Your task to perform on an android device: open app "Google Docs" (install if not already installed) Image 0: 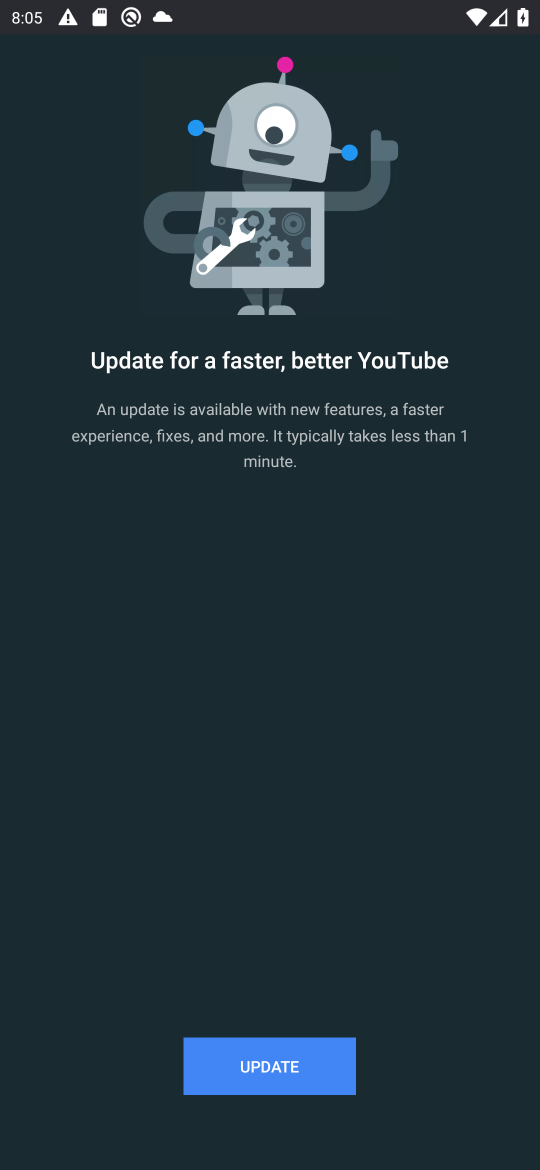
Step 0: press home button
Your task to perform on an android device: open app "Google Docs" (install if not already installed) Image 1: 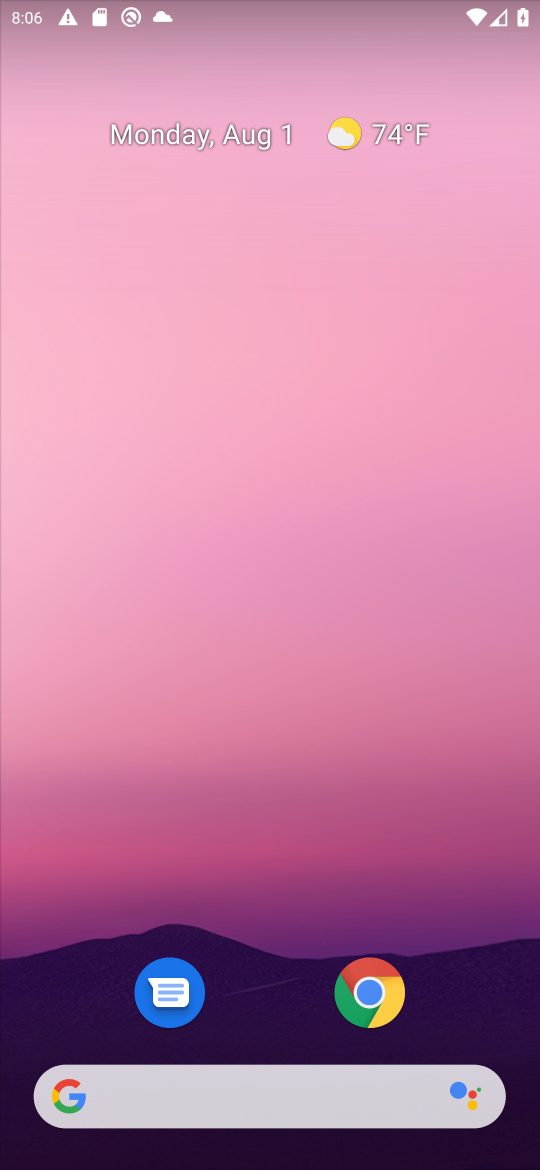
Step 1: drag from (262, 922) to (257, 116)
Your task to perform on an android device: open app "Google Docs" (install if not already installed) Image 2: 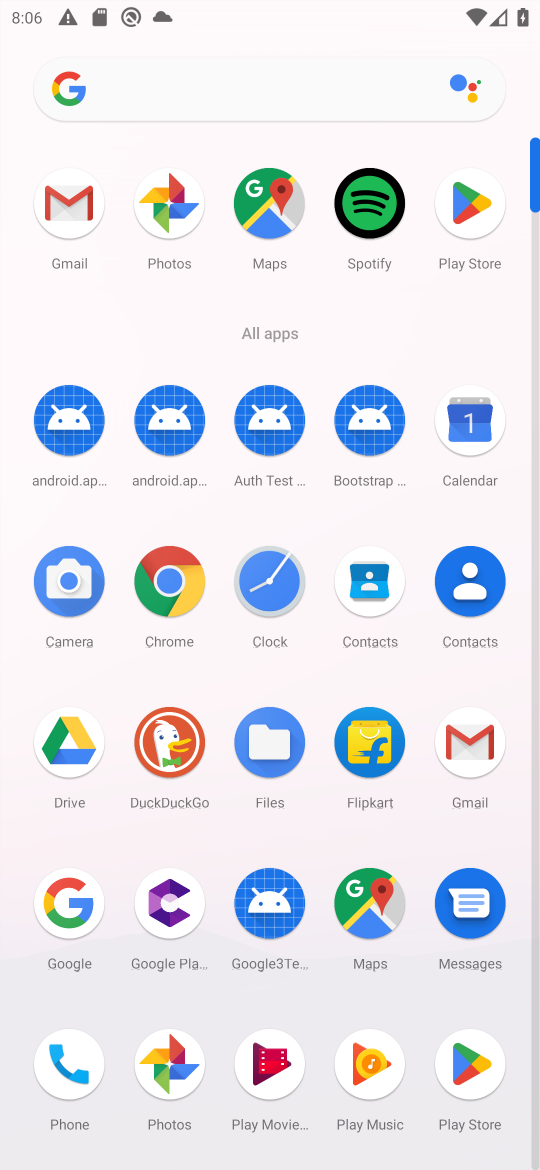
Step 2: click (468, 193)
Your task to perform on an android device: open app "Google Docs" (install if not already installed) Image 3: 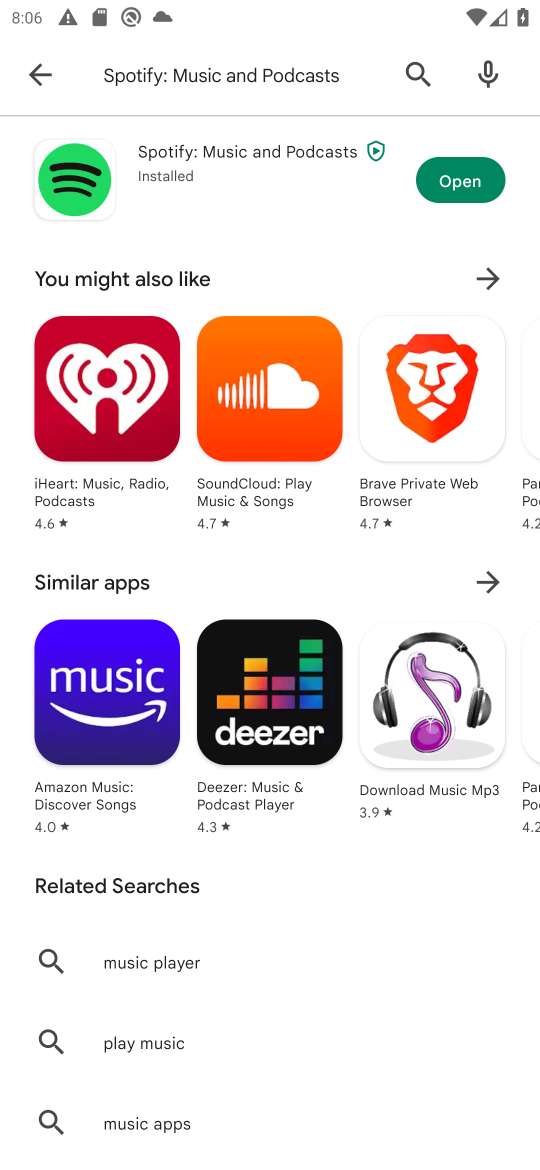
Step 3: click (215, 77)
Your task to perform on an android device: open app "Google Docs" (install if not already installed) Image 4: 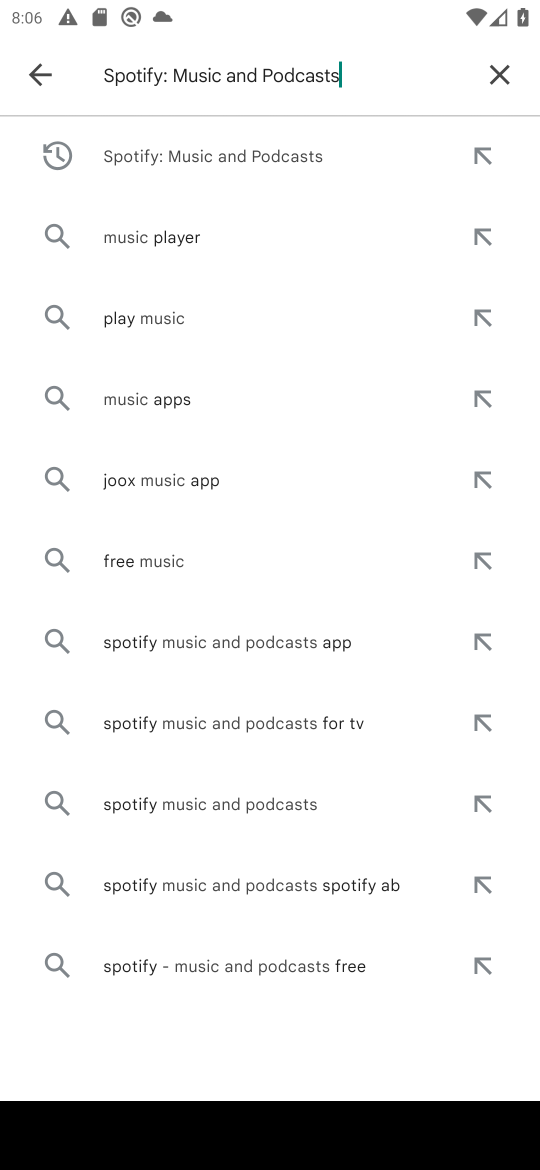
Step 4: click (505, 70)
Your task to perform on an android device: open app "Google Docs" (install if not already installed) Image 5: 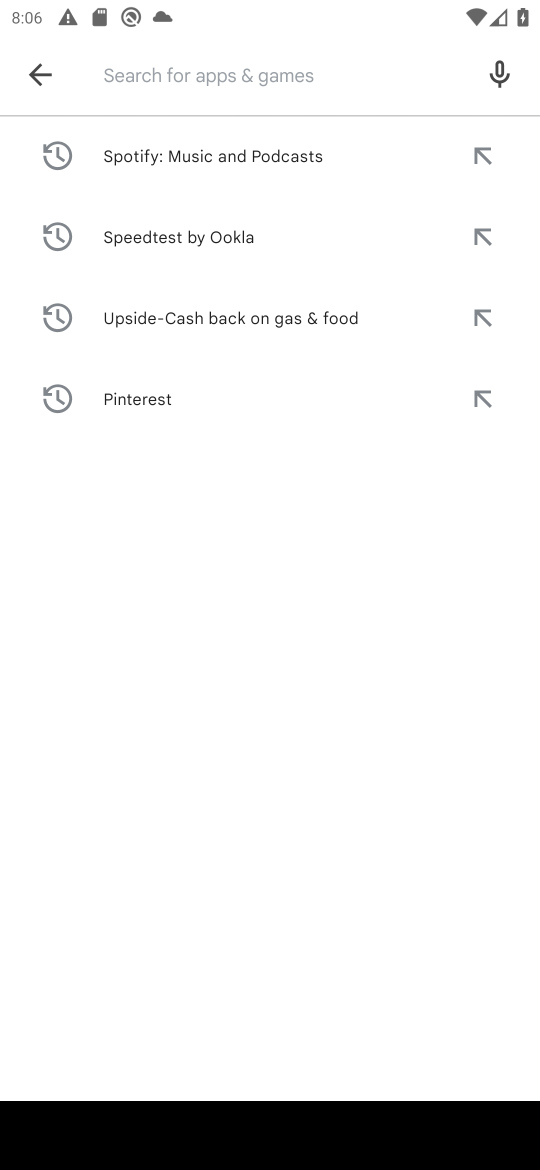
Step 5: type "Google Docs"
Your task to perform on an android device: open app "Google Docs" (install if not already installed) Image 6: 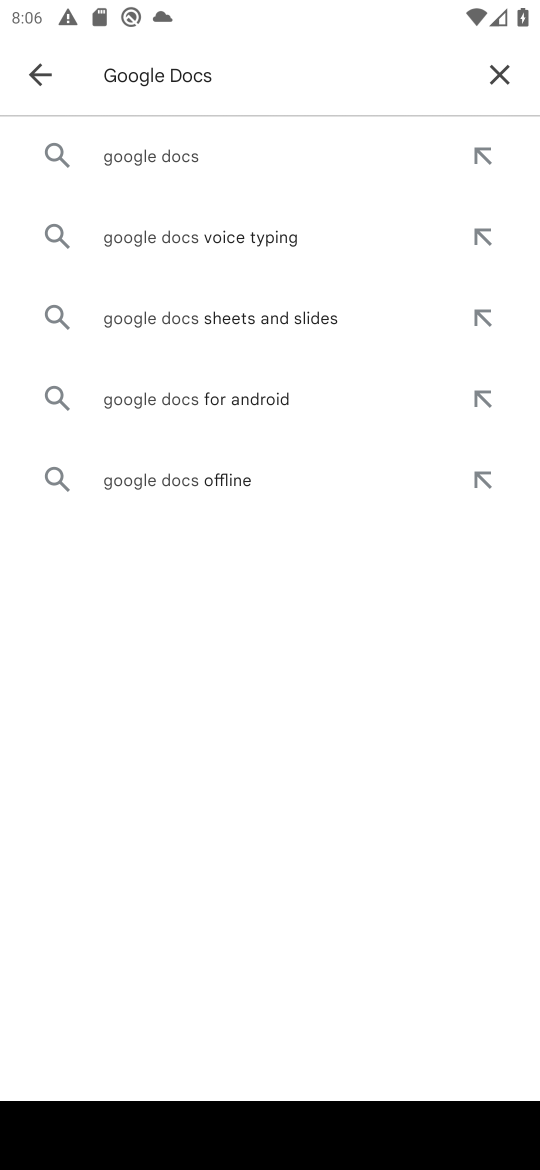
Step 6: press enter
Your task to perform on an android device: open app "Google Docs" (install if not already installed) Image 7: 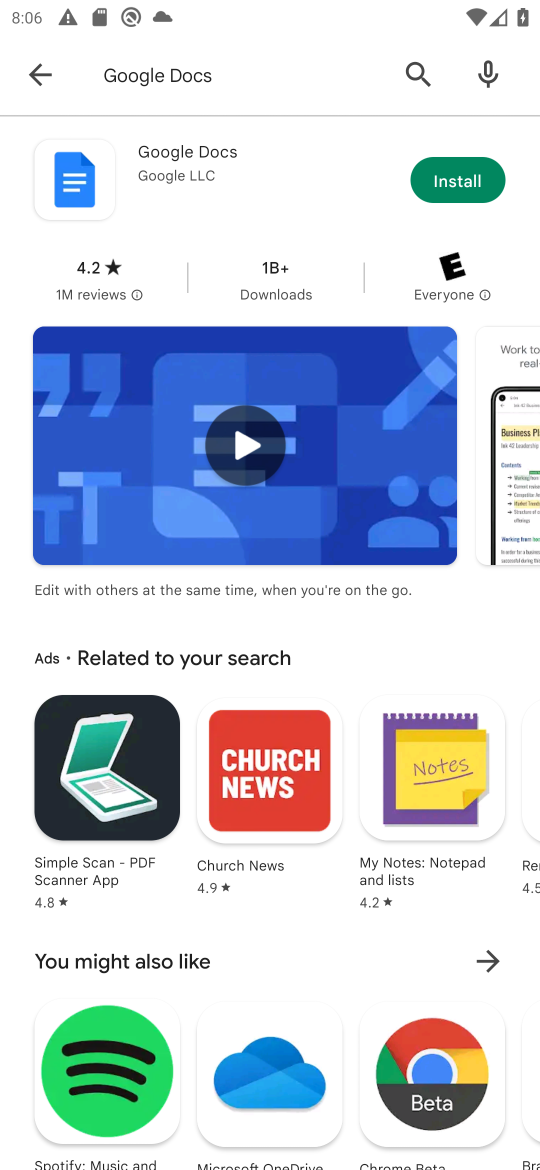
Step 7: click (482, 176)
Your task to perform on an android device: open app "Google Docs" (install if not already installed) Image 8: 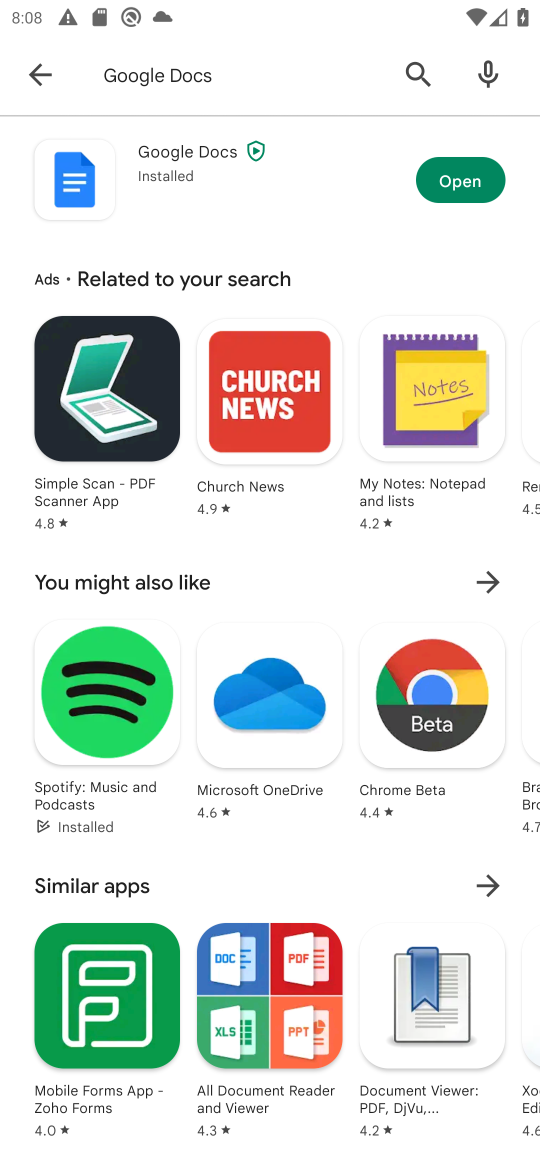
Step 8: click (495, 184)
Your task to perform on an android device: open app "Google Docs" (install if not already installed) Image 9: 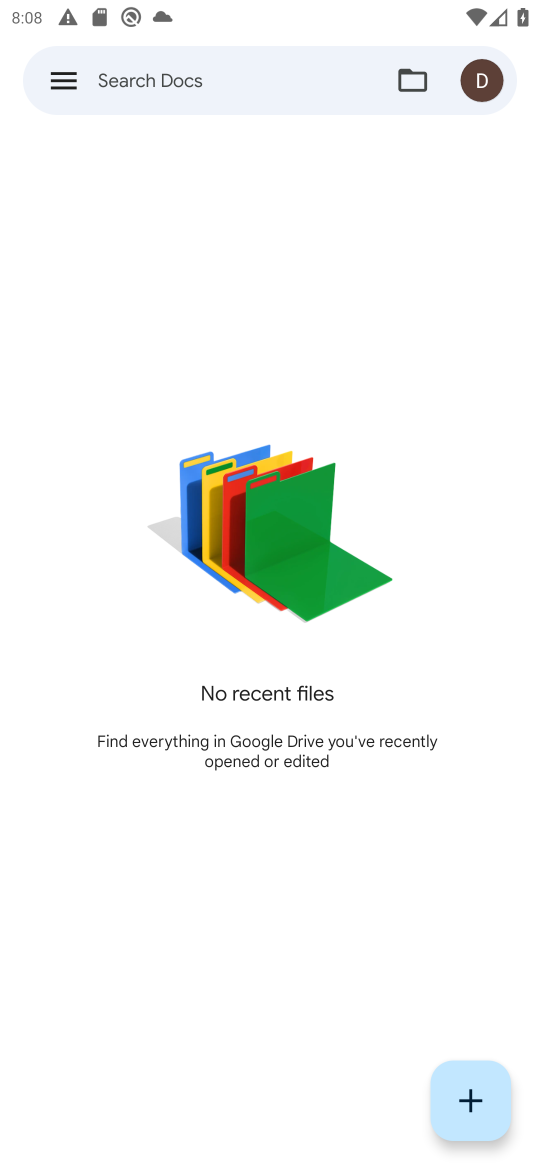
Step 9: task complete